Your task to perform on an android device: Open privacy settings Image 0: 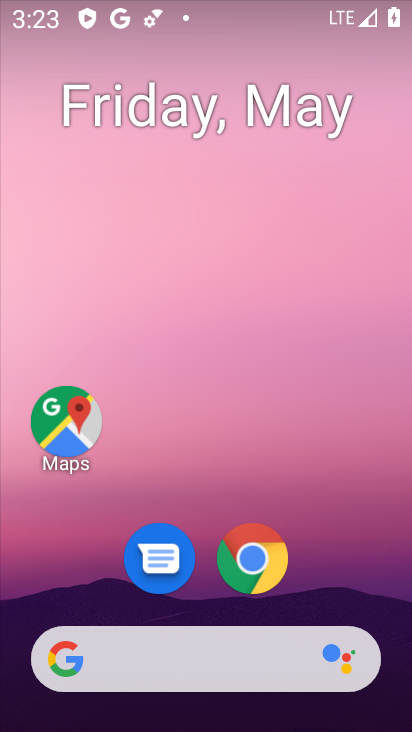
Step 0: press home button
Your task to perform on an android device: Open privacy settings Image 1: 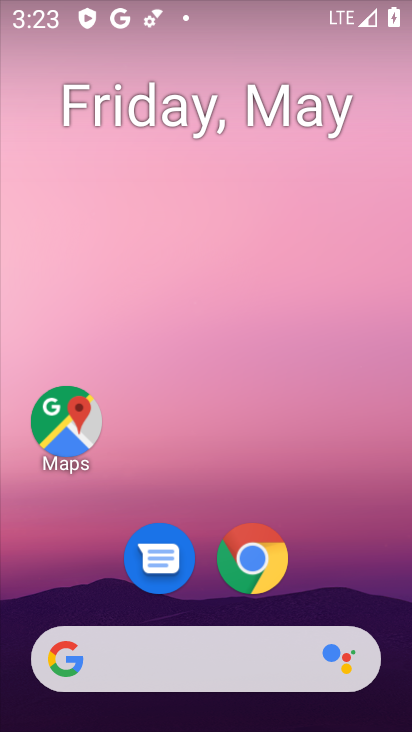
Step 1: drag from (206, 648) to (293, 192)
Your task to perform on an android device: Open privacy settings Image 2: 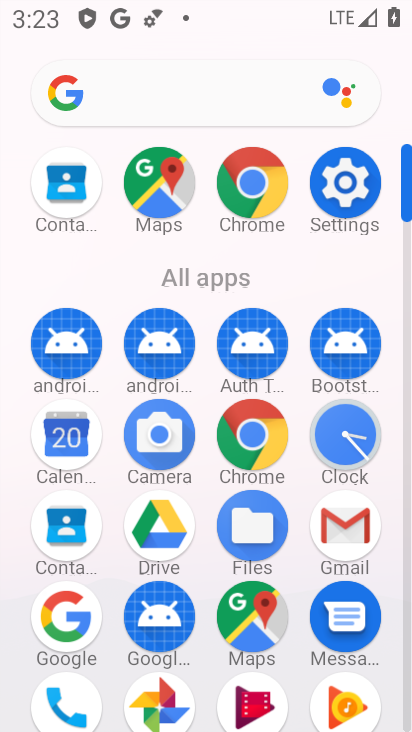
Step 2: click (357, 175)
Your task to perform on an android device: Open privacy settings Image 3: 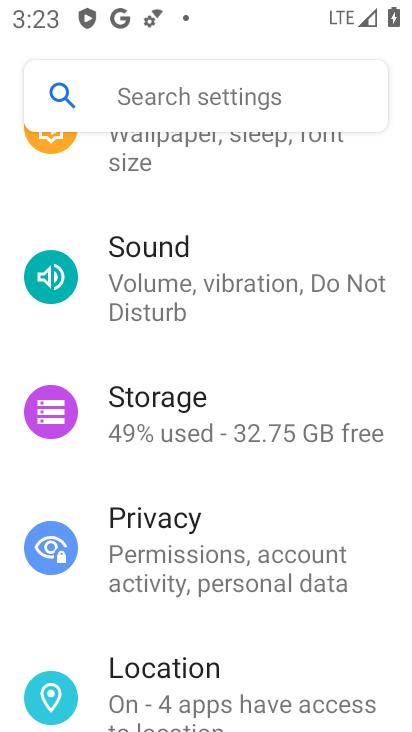
Step 3: click (186, 551)
Your task to perform on an android device: Open privacy settings Image 4: 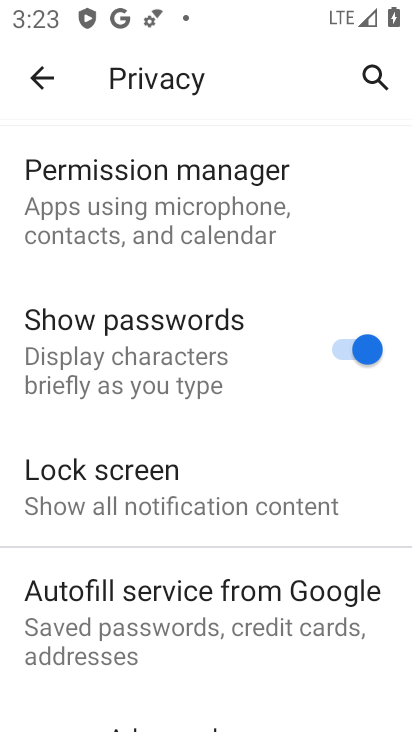
Step 4: task complete